Your task to perform on an android device: toggle translation in the chrome app Image 0: 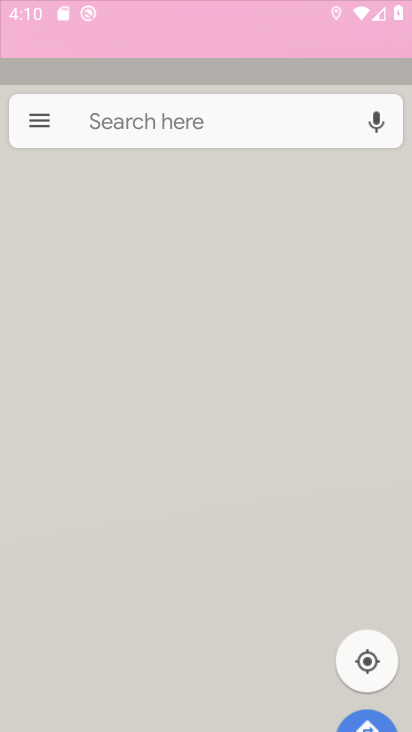
Step 0: click (29, 46)
Your task to perform on an android device: toggle translation in the chrome app Image 1: 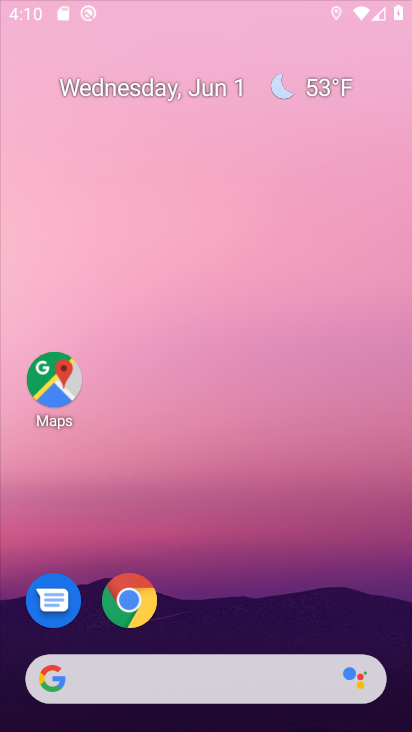
Step 1: drag from (263, 720) to (262, 157)
Your task to perform on an android device: toggle translation in the chrome app Image 2: 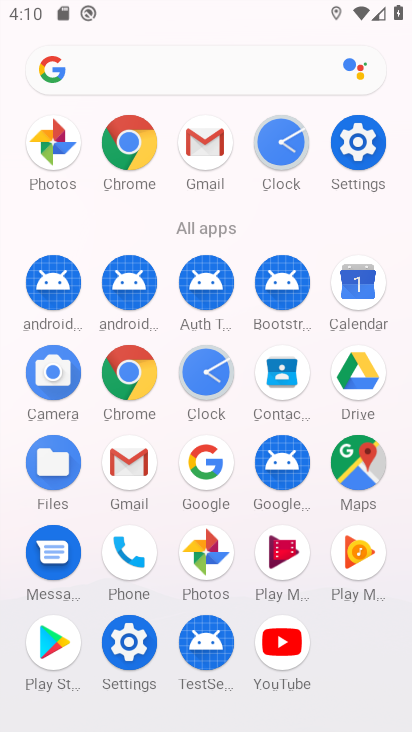
Step 2: click (116, 141)
Your task to perform on an android device: toggle translation in the chrome app Image 3: 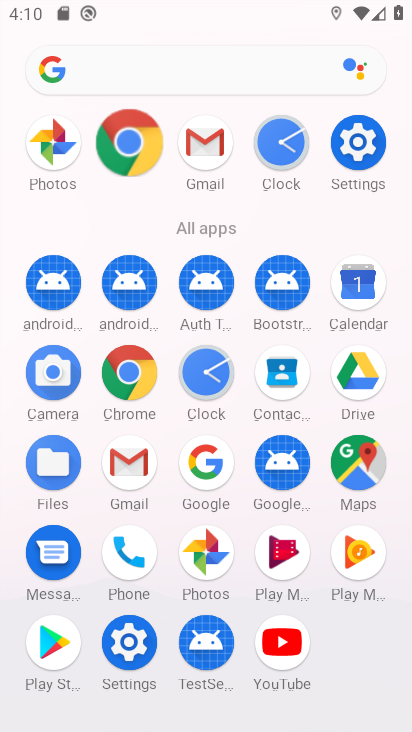
Step 3: click (120, 121)
Your task to perform on an android device: toggle translation in the chrome app Image 4: 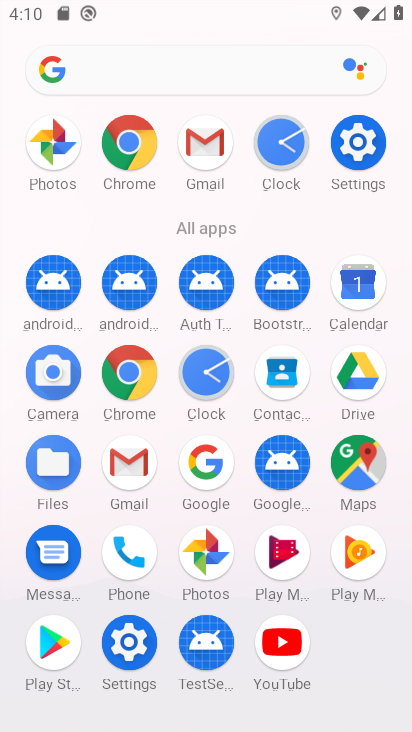
Step 4: click (137, 134)
Your task to perform on an android device: toggle translation in the chrome app Image 5: 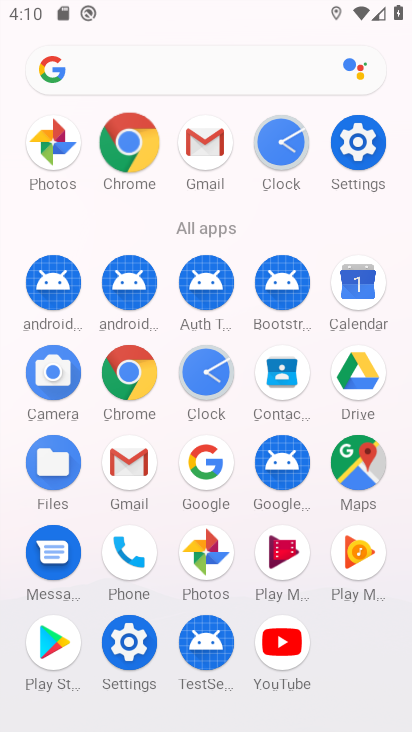
Step 5: click (137, 134)
Your task to perform on an android device: toggle translation in the chrome app Image 6: 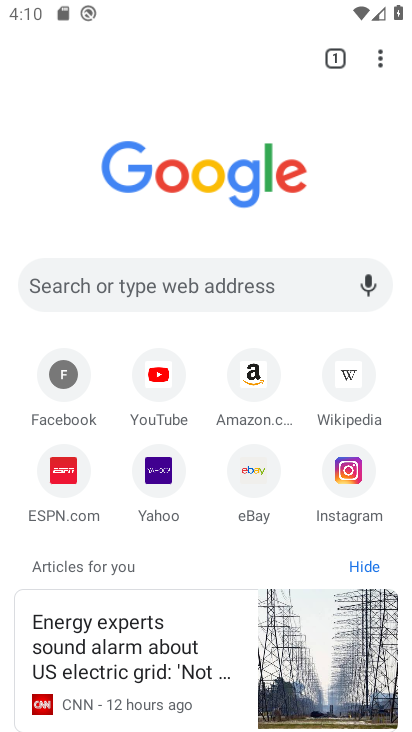
Step 6: click (381, 65)
Your task to perform on an android device: toggle translation in the chrome app Image 7: 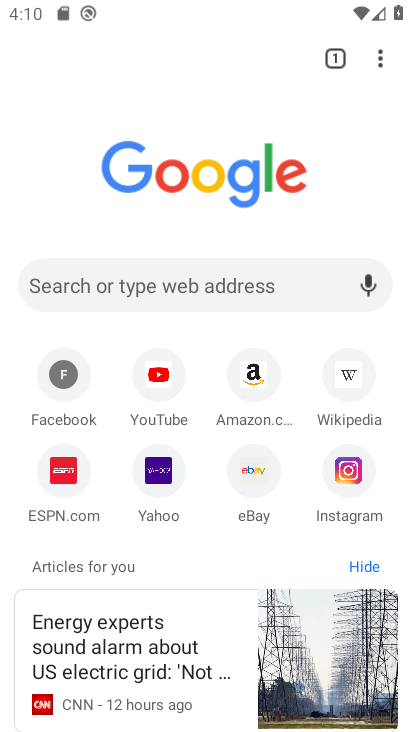
Step 7: drag from (380, 57) to (148, 513)
Your task to perform on an android device: toggle translation in the chrome app Image 8: 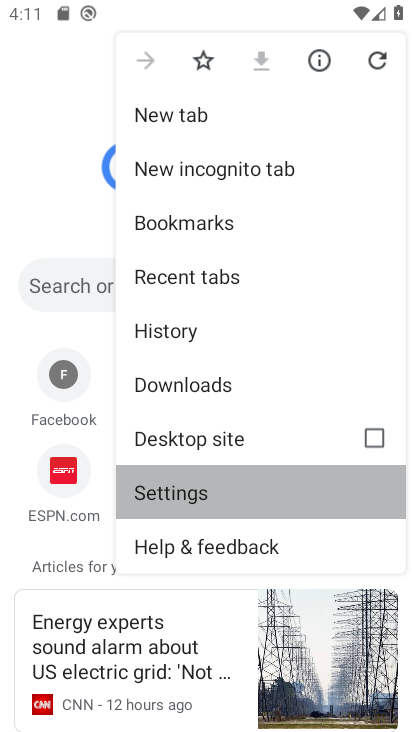
Step 8: click (153, 500)
Your task to perform on an android device: toggle translation in the chrome app Image 9: 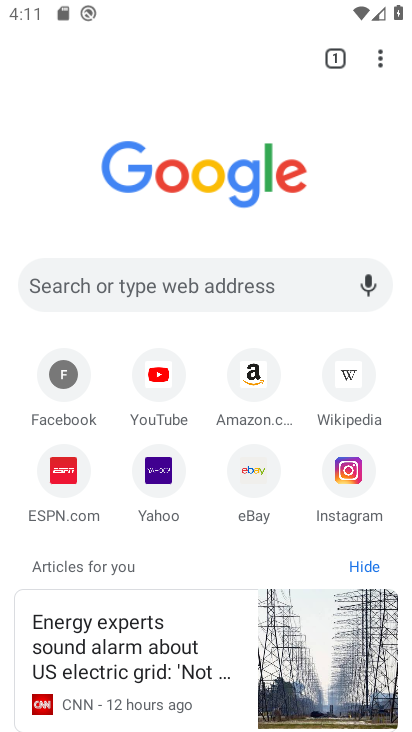
Step 9: click (153, 500)
Your task to perform on an android device: toggle translation in the chrome app Image 10: 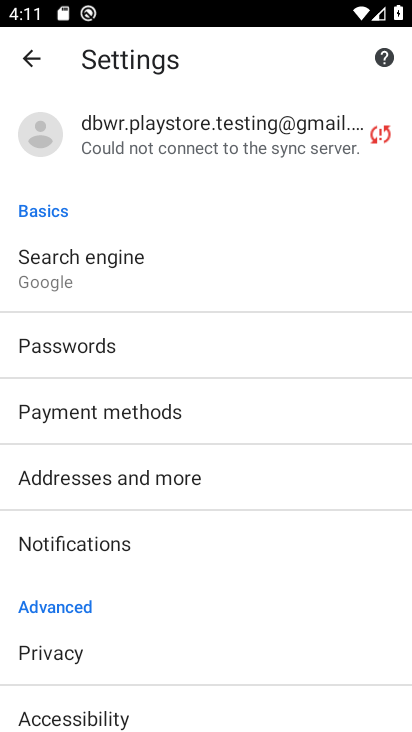
Step 10: drag from (137, 592) to (54, 207)
Your task to perform on an android device: toggle translation in the chrome app Image 11: 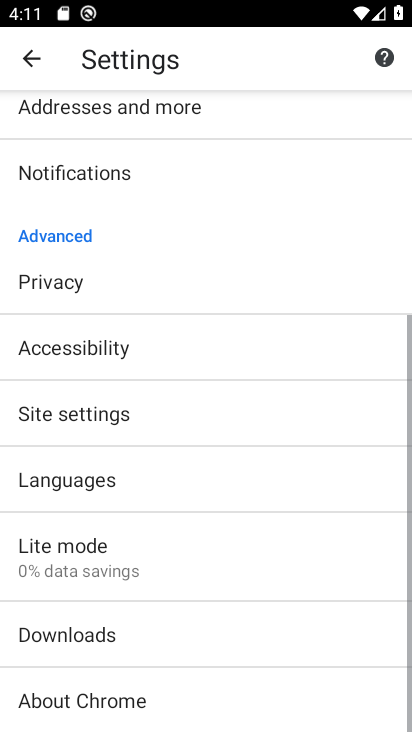
Step 11: drag from (180, 556) to (184, 291)
Your task to perform on an android device: toggle translation in the chrome app Image 12: 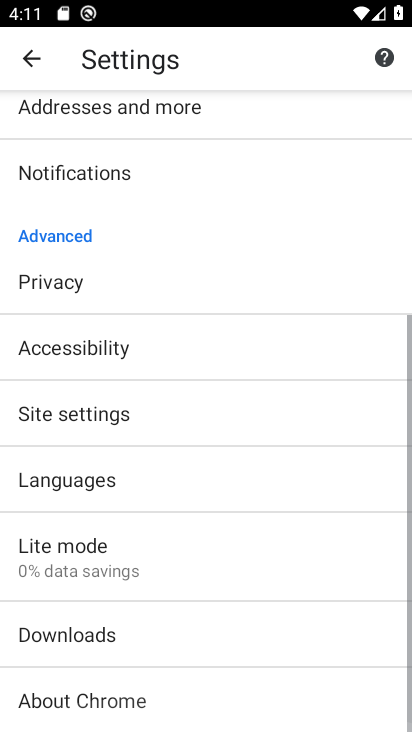
Step 12: drag from (208, 545) to (231, 265)
Your task to perform on an android device: toggle translation in the chrome app Image 13: 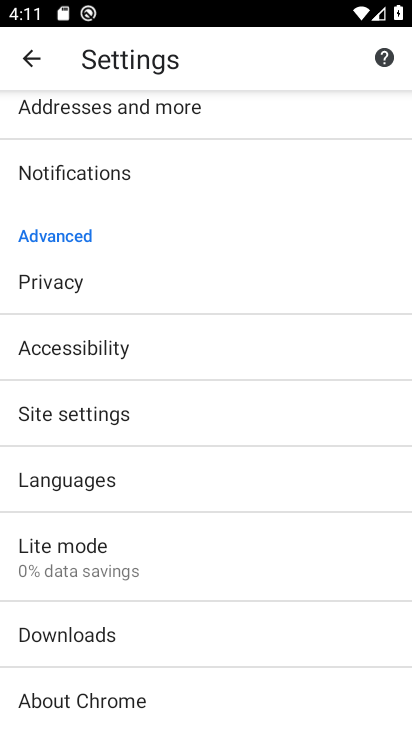
Step 13: click (66, 482)
Your task to perform on an android device: toggle translation in the chrome app Image 14: 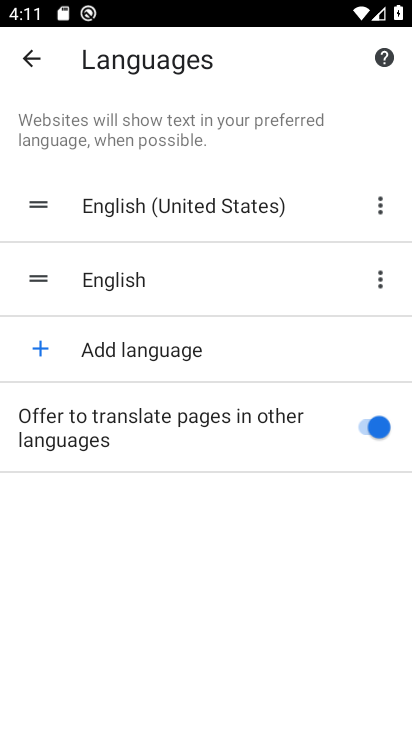
Step 14: click (370, 428)
Your task to perform on an android device: toggle translation in the chrome app Image 15: 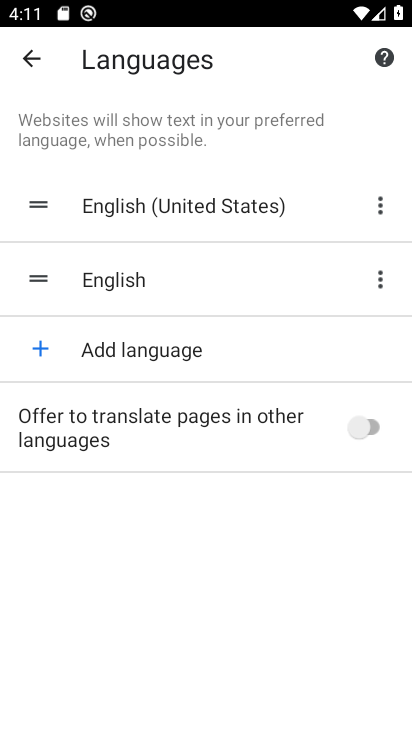
Step 15: task complete